Your task to perform on an android device: Check the weather Image 0: 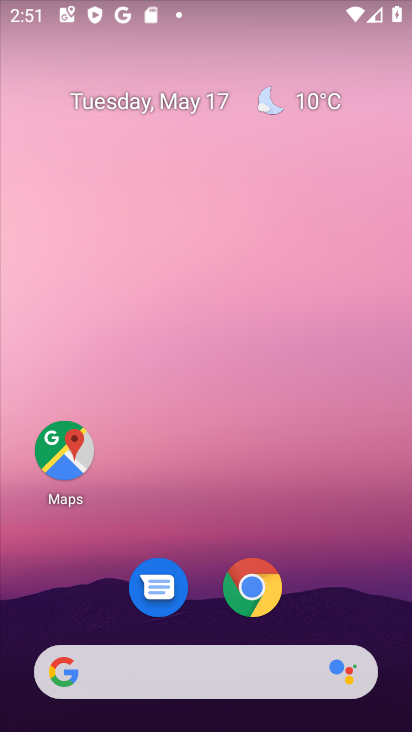
Step 0: drag from (323, 559) to (273, 74)
Your task to perform on an android device: Check the weather Image 1: 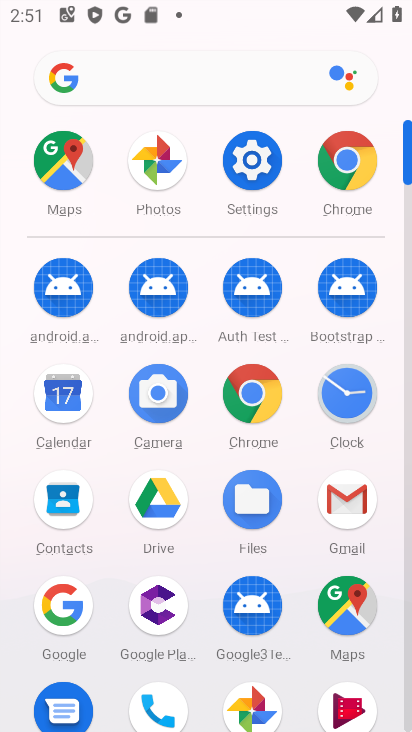
Step 1: drag from (10, 542) to (17, 188)
Your task to perform on an android device: Check the weather Image 2: 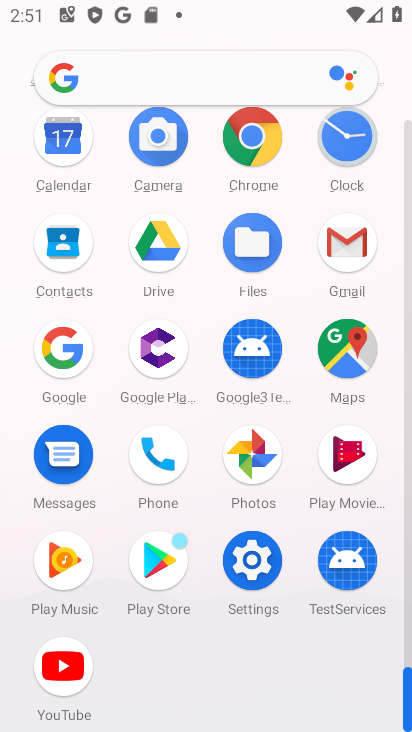
Step 2: click (245, 138)
Your task to perform on an android device: Check the weather Image 3: 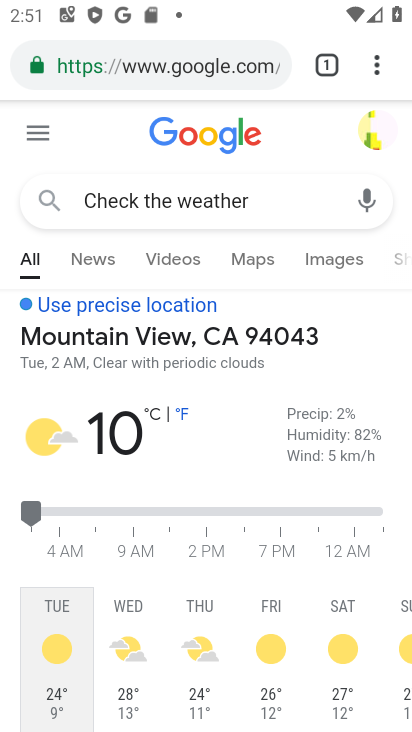
Step 3: task complete